Your task to perform on an android device: What's the weather going to be tomorrow? Image 0: 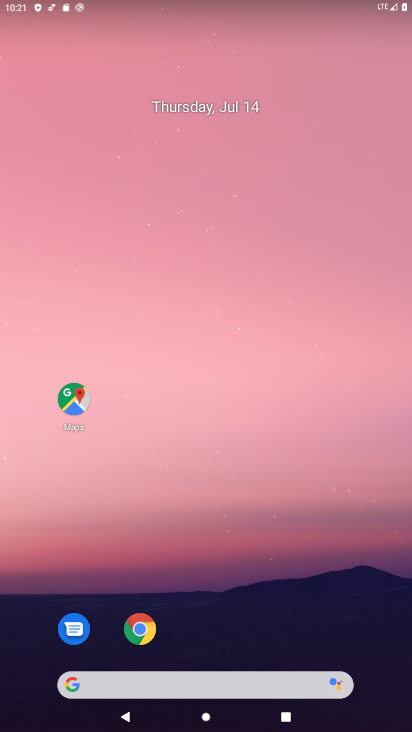
Step 0: drag from (3, 209) to (363, 189)
Your task to perform on an android device: What's the weather going to be tomorrow? Image 1: 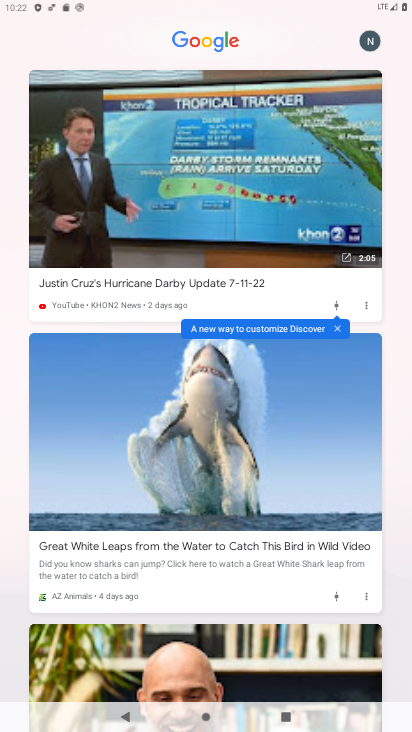
Step 1: press back button
Your task to perform on an android device: What's the weather going to be tomorrow? Image 2: 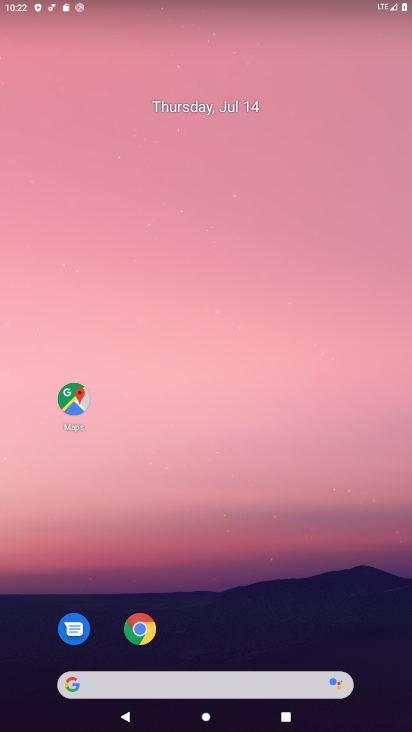
Step 2: click (158, 686)
Your task to perform on an android device: What's the weather going to be tomorrow? Image 3: 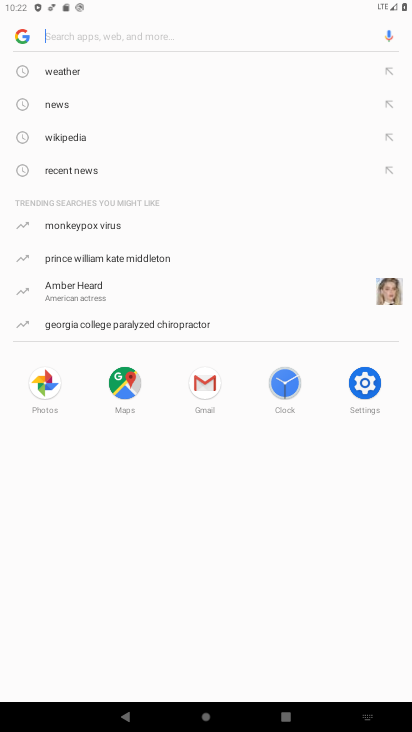
Step 3: type "weather for tomorrow"
Your task to perform on an android device: What's the weather going to be tomorrow? Image 4: 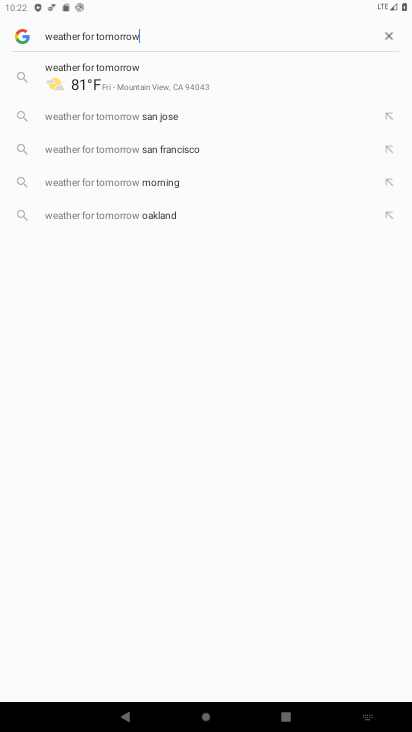
Step 4: click (209, 84)
Your task to perform on an android device: What's the weather going to be tomorrow? Image 5: 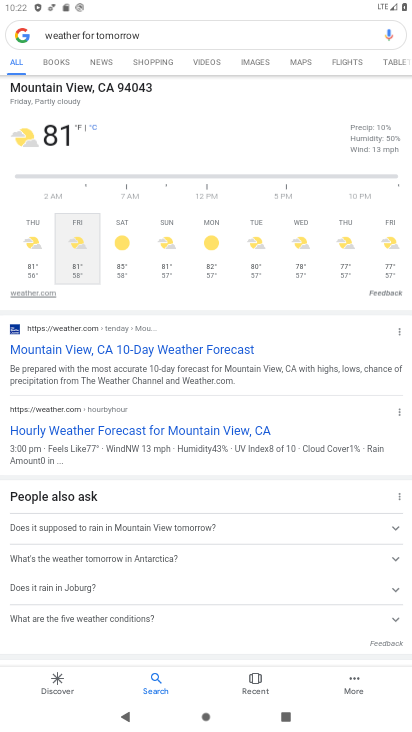
Step 5: task complete